Your task to perform on an android device: toggle notification dots Image 0: 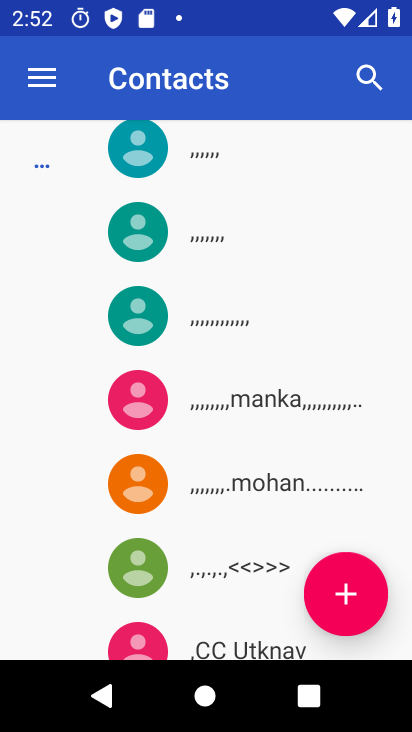
Step 0: press home button
Your task to perform on an android device: toggle notification dots Image 1: 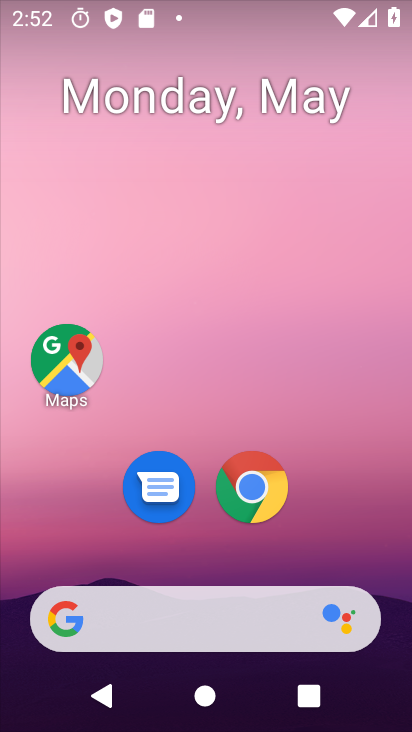
Step 1: drag from (238, 560) to (311, 9)
Your task to perform on an android device: toggle notification dots Image 2: 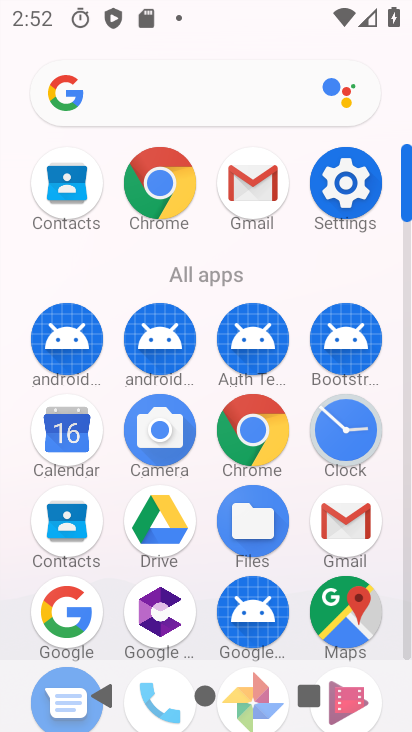
Step 2: click (355, 178)
Your task to perform on an android device: toggle notification dots Image 3: 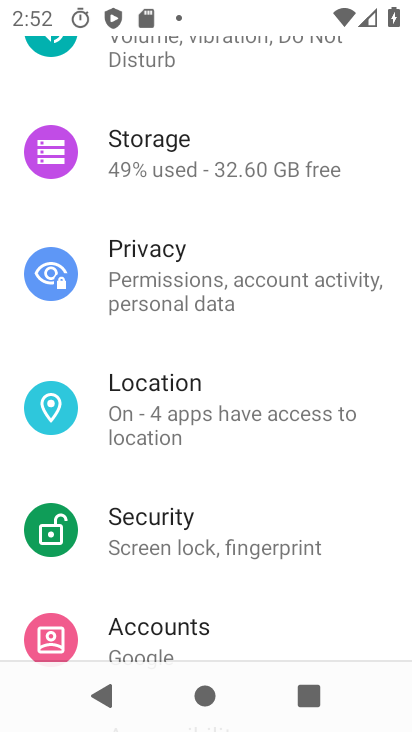
Step 3: drag from (224, 168) to (226, 505)
Your task to perform on an android device: toggle notification dots Image 4: 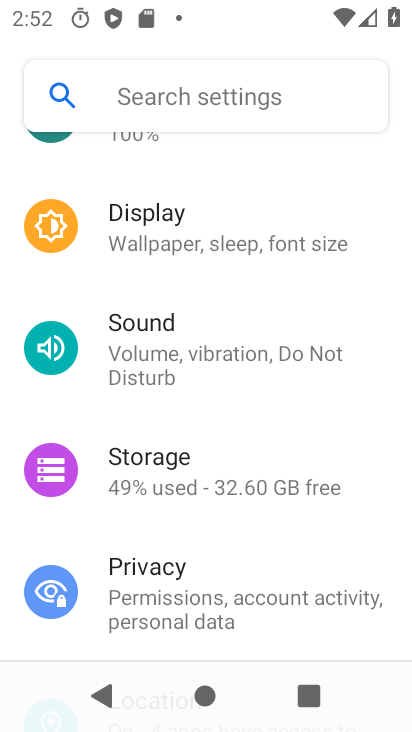
Step 4: drag from (214, 262) to (214, 597)
Your task to perform on an android device: toggle notification dots Image 5: 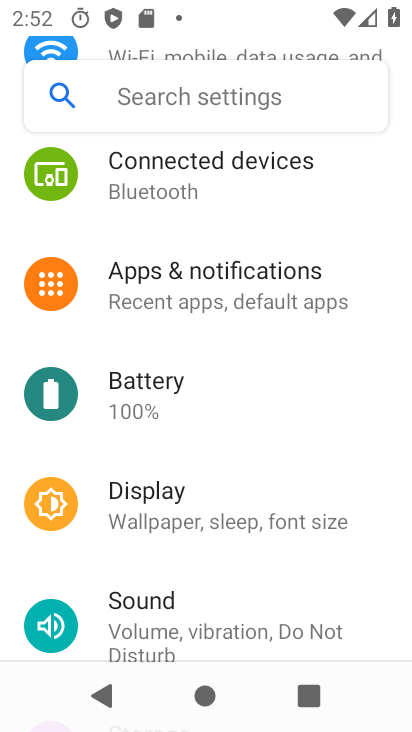
Step 5: click (186, 295)
Your task to perform on an android device: toggle notification dots Image 6: 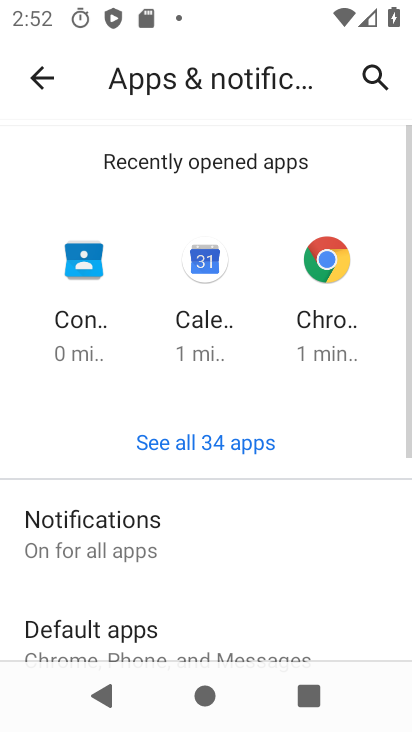
Step 6: click (168, 551)
Your task to perform on an android device: toggle notification dots Image 7: 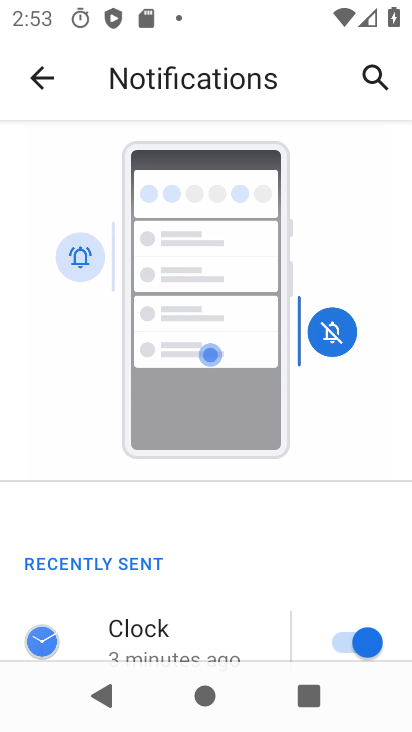
Step 7: drag from (164, 591) to (229, 239)
Your task to perform on an android device: toggle notification dots Image 8: 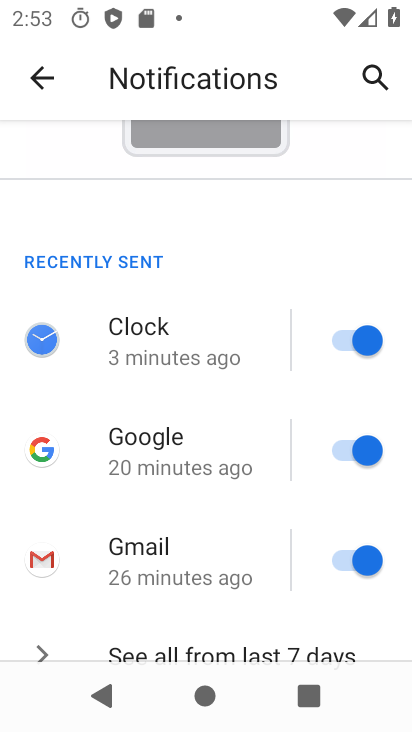
Step 8: drag from (224, 516) to (267, 178)
Your task to perform on an android device: toggle notification dots Image 9: 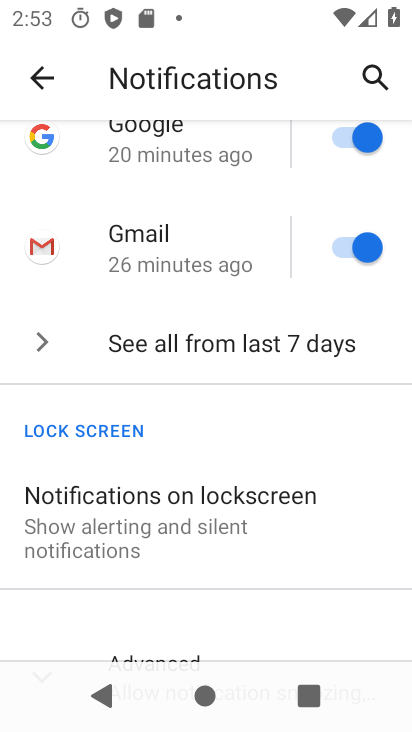
Step 9: drag from (216, 516) to (252, 156)
Your task to perform on an android device: toggle notification dots Image 10: 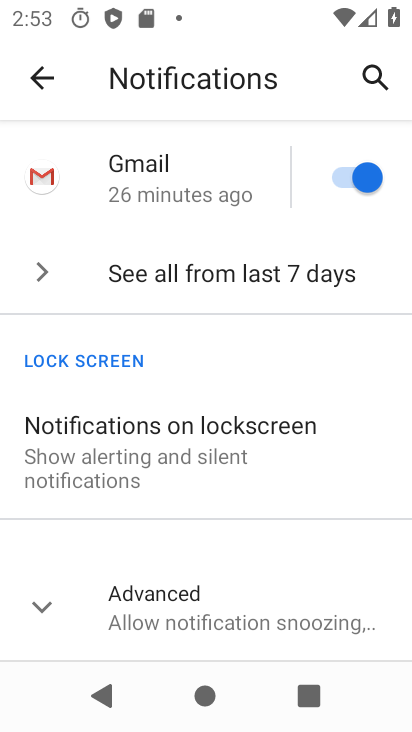
Step 10: drag from (174, 581) to (253, 263)
Your task to perform on an android device: toggle notification dots Image 11: 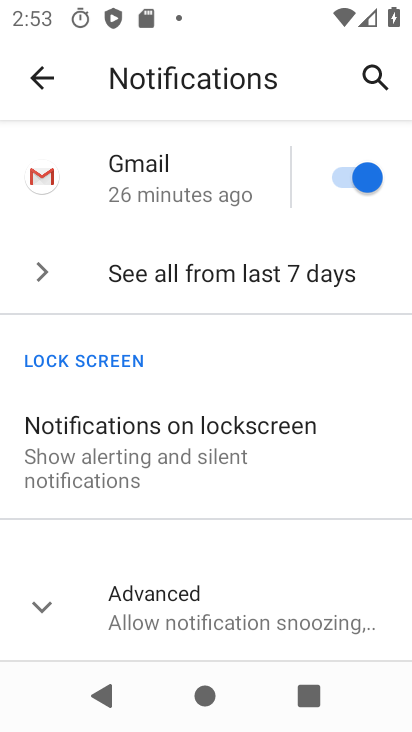
Step 11: click (173, 597)
Your task to perform on an android device: toggle notification dots Image 12: 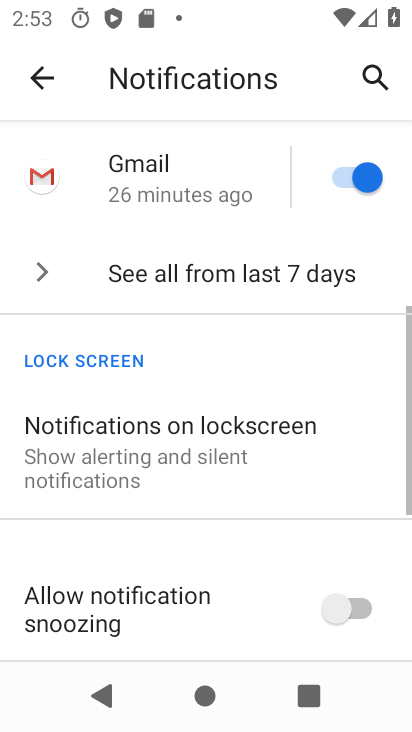
Step 12: drag from (181, 590) to (297, 15)
Your task to perform on an android device: toggle notification dots Image 13: 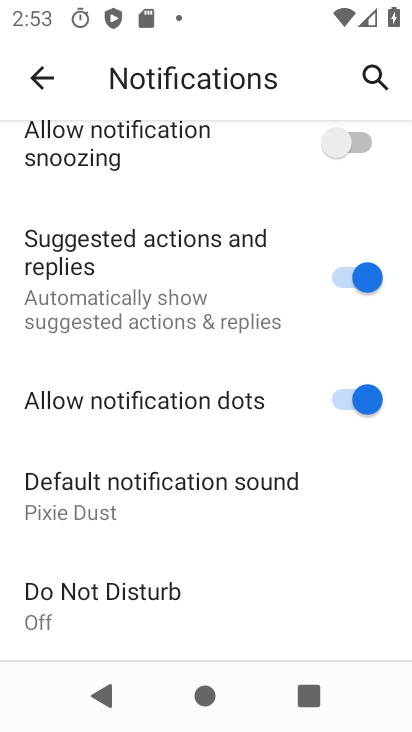
Step 13: click (339, 401)
Your task to perform on an android device: toggle notification dots Image 14: 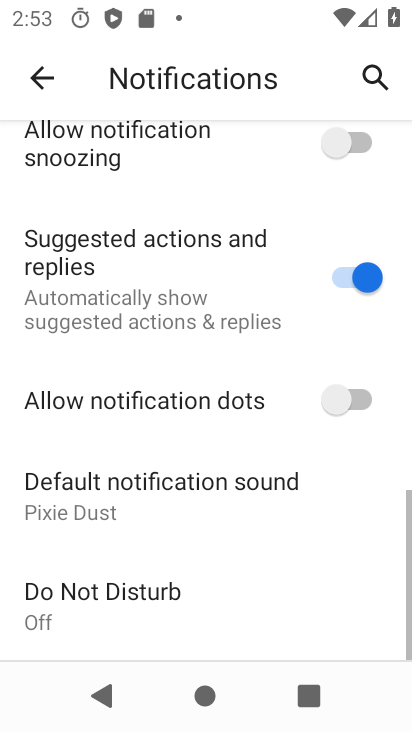
Step 14: task complete